Your task to perform on an android device: open app "Google Docs" Image 0: 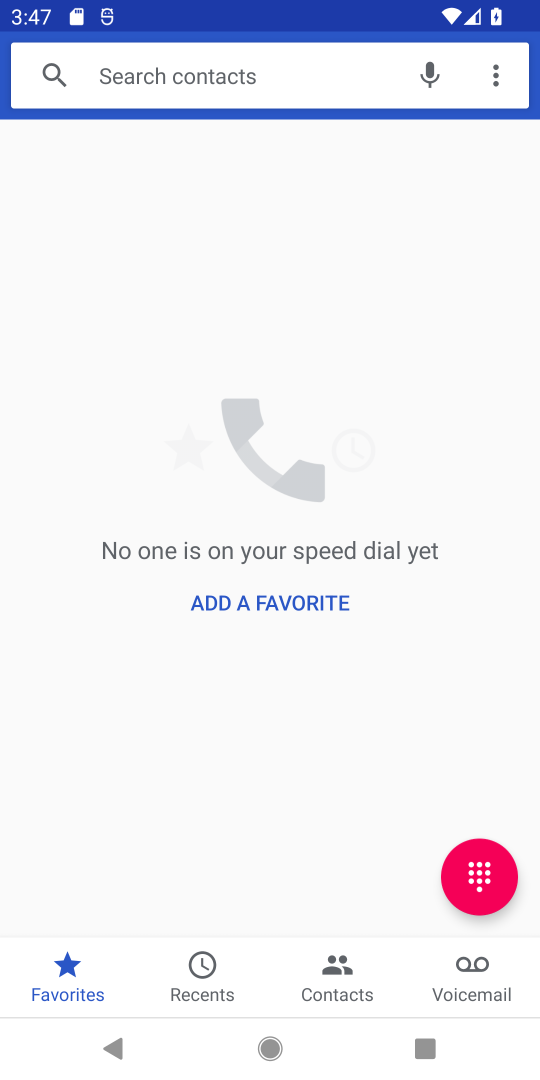
Step 0: press home button
Your task to perform on an android device: open app "Google Docs" Image 1: 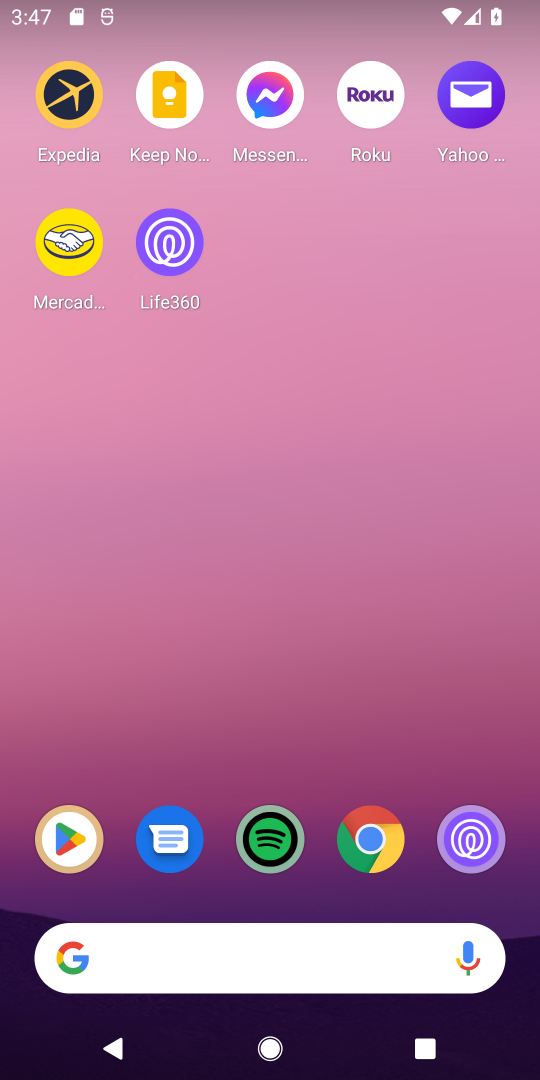
Step 1: drag from (208, 908) to (262, 176)
Your task to perform on an android device: open app "Google Docs" Image 2: 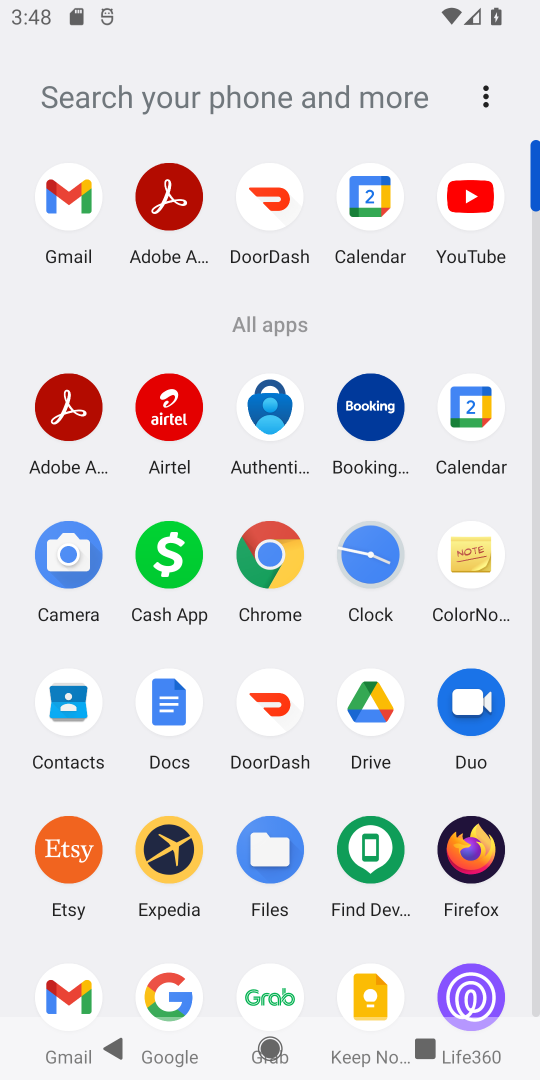
Step 2: click (184, 989)
Your task to perform on an android device: open app "Google Docs" Image 3: 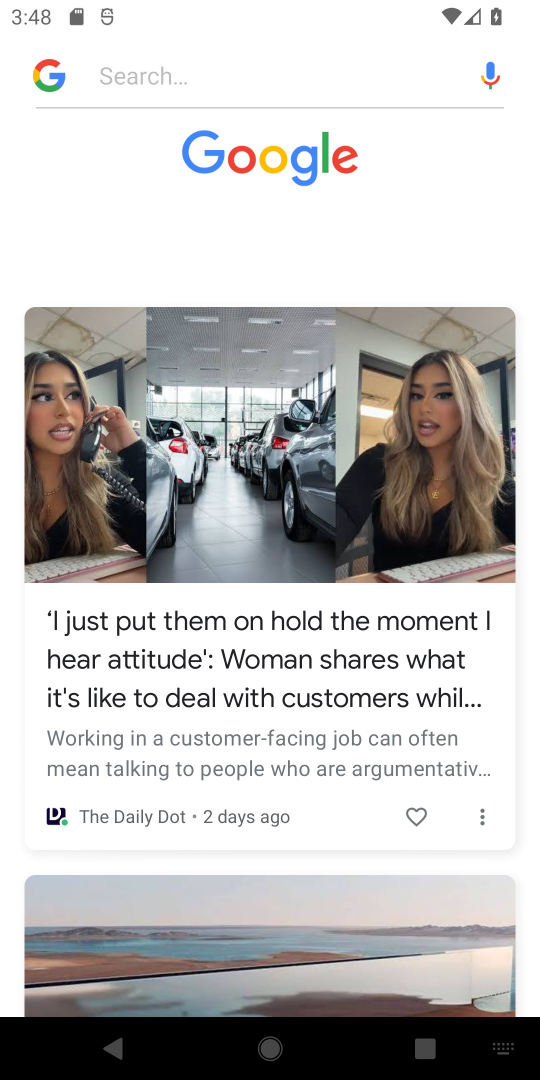
Step 3: press home button
Your task to perform on an android device: open app "Google Docs" Image 4: 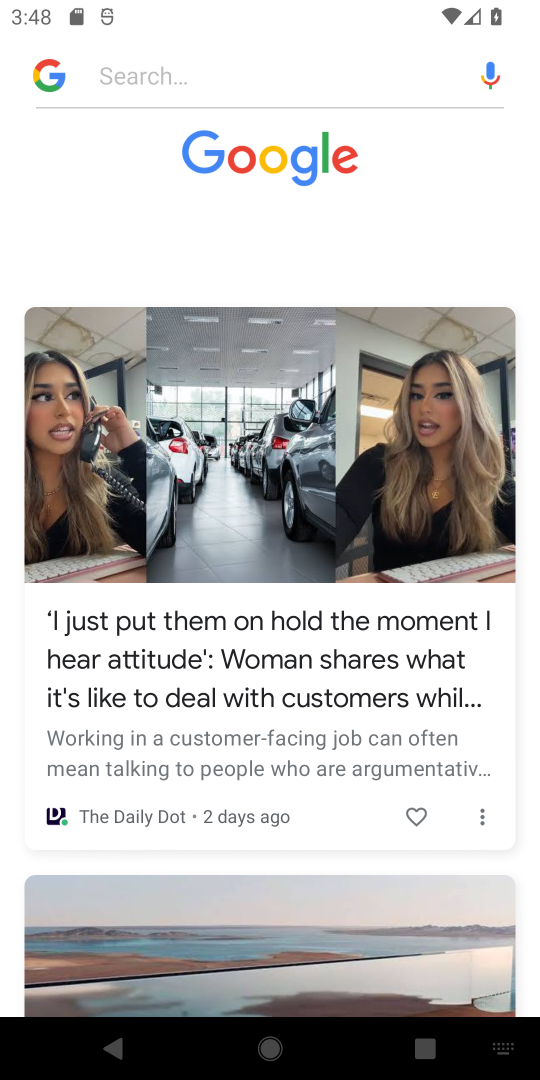
Step 4: type "goo"
Your task to perform on an android device: open app "Google Docs" Image 5: 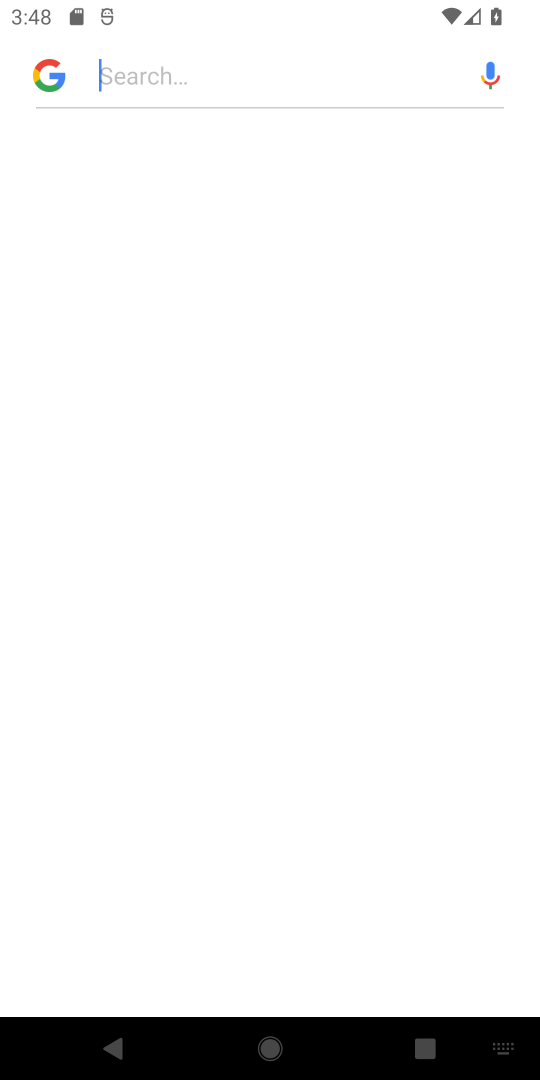
Step 5: click (261, 1056)
Your task to perform on an android device: open app "Google Docs" Image 6: 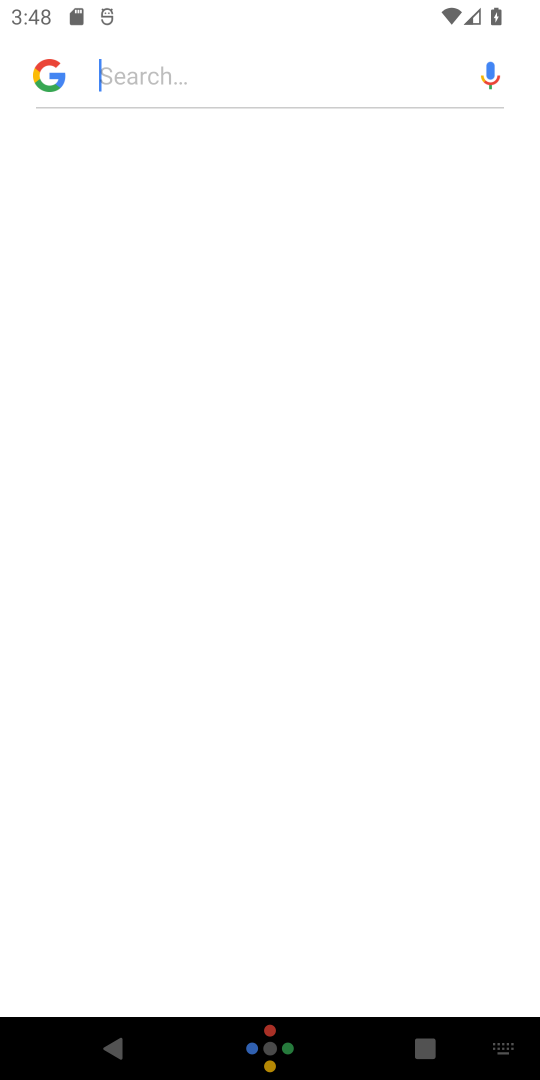
Step 6: click (261, 1056)
Your task to perform on an android device: open app "Google Docs" Image 7: 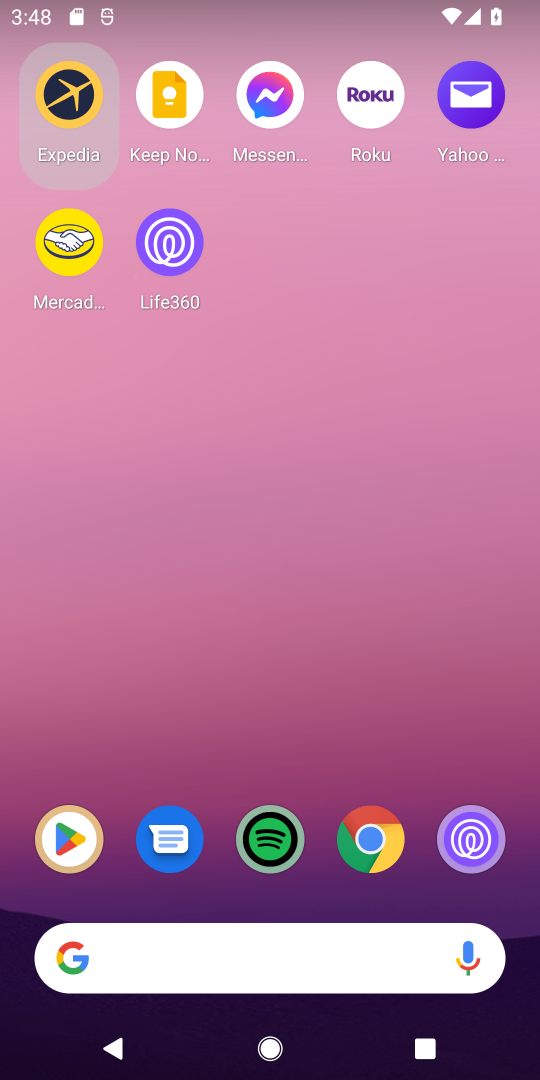
Step 7: click (90, 868)
Your task to perform on an android device: open app "Google Docs" Image 8: 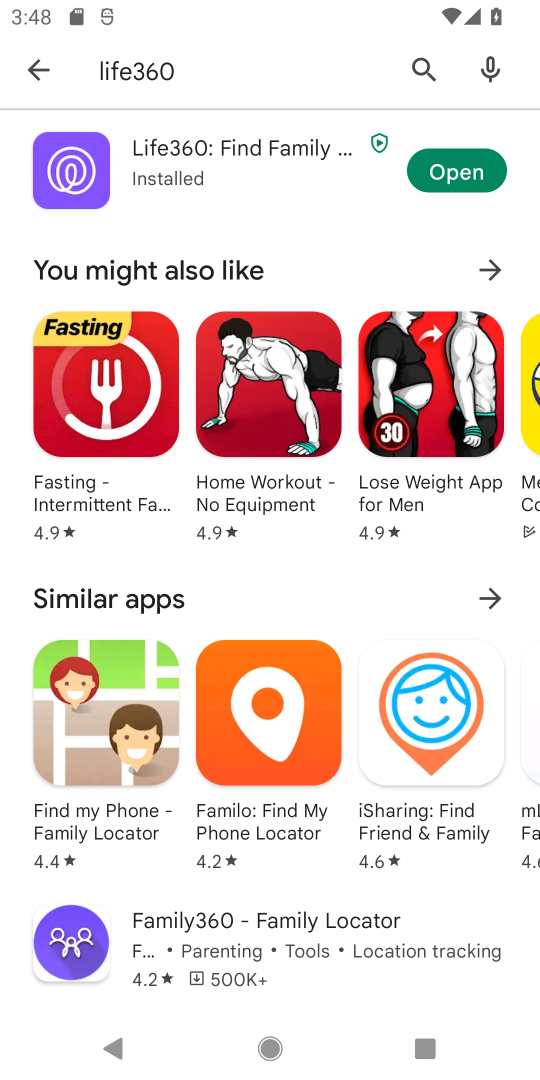
Step 8: click (435, 90)
Your task to perform on an android device: open app "Google Docs" Image 9: 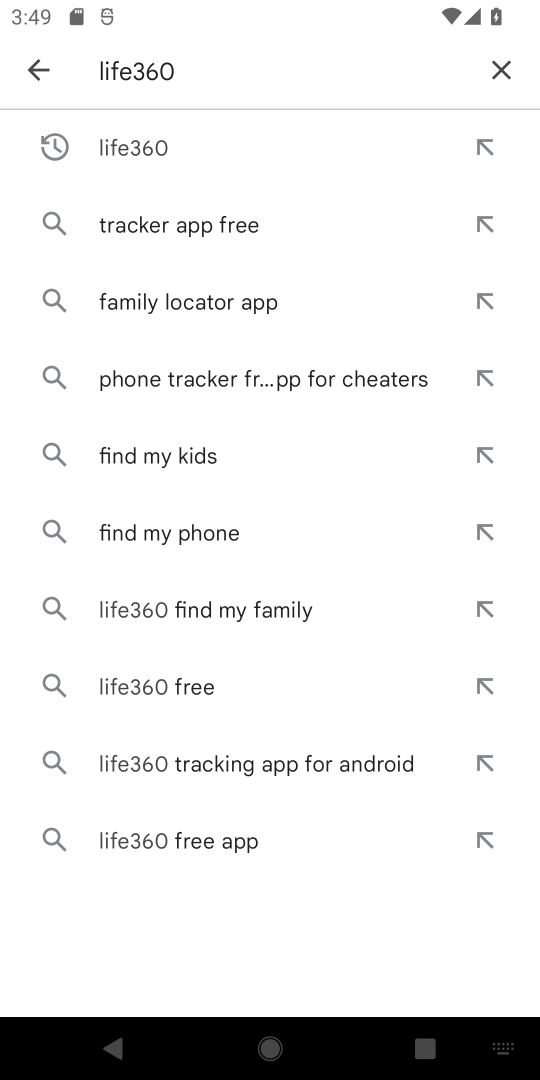
Step 9: click (519, 76)
Your task to perform on an android device: open app "Google Docs" Image 10: 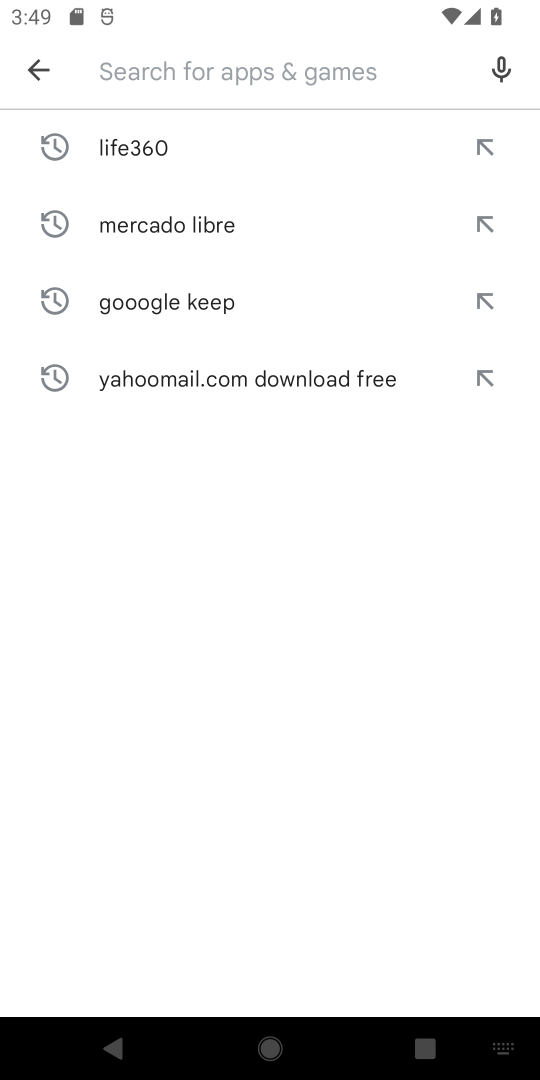
Step 10: type "google doc"
Your task to perform on an android device: open app "Google Docs" Image 11: 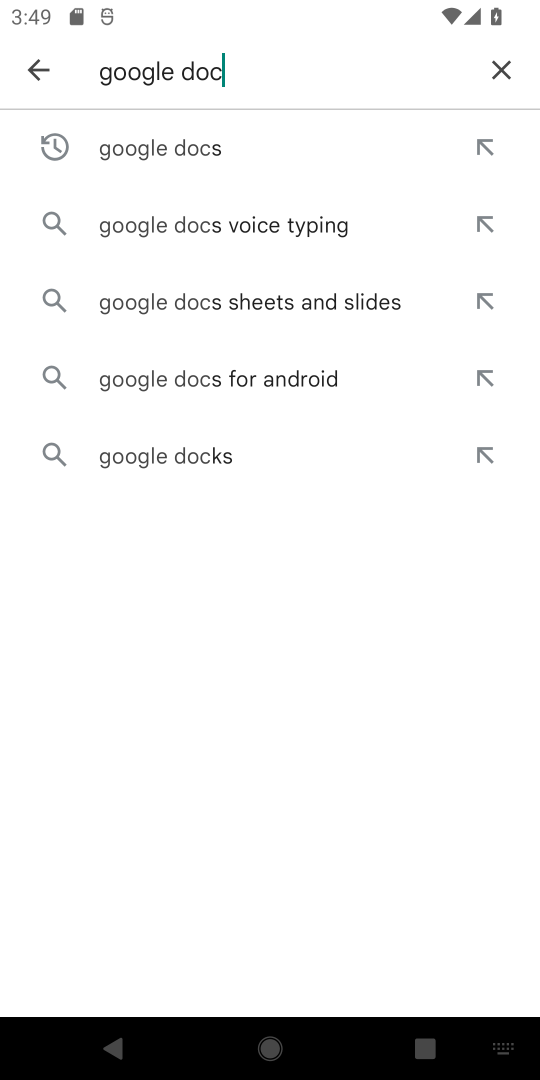
Step 11: click (267, 164)
Your task to perform on an android device: open app "Google Docs" Image 12: 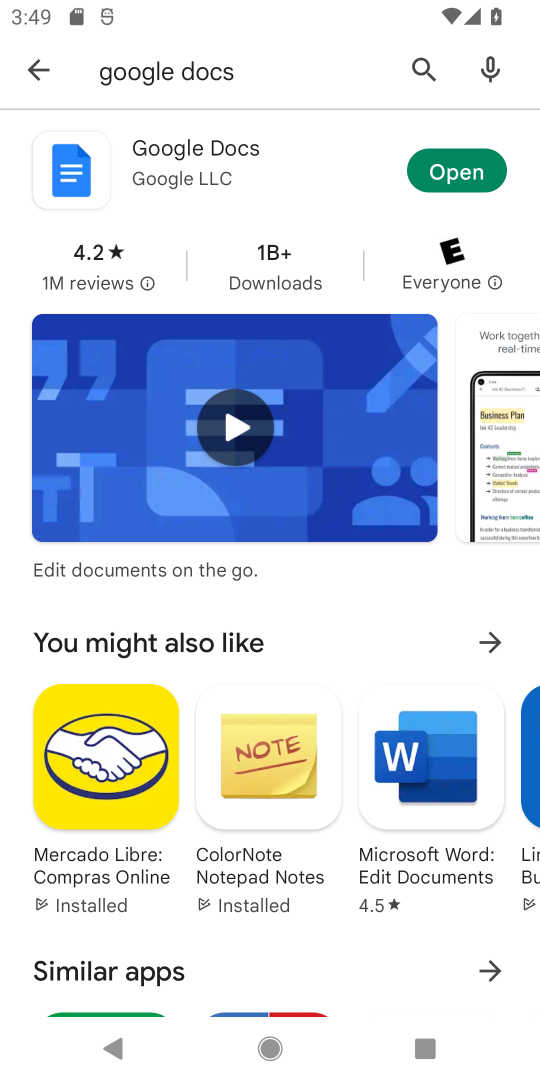
Step 12: click (445, 180)
Your task to perform on an android device: open app "Google Docs" Image 13: 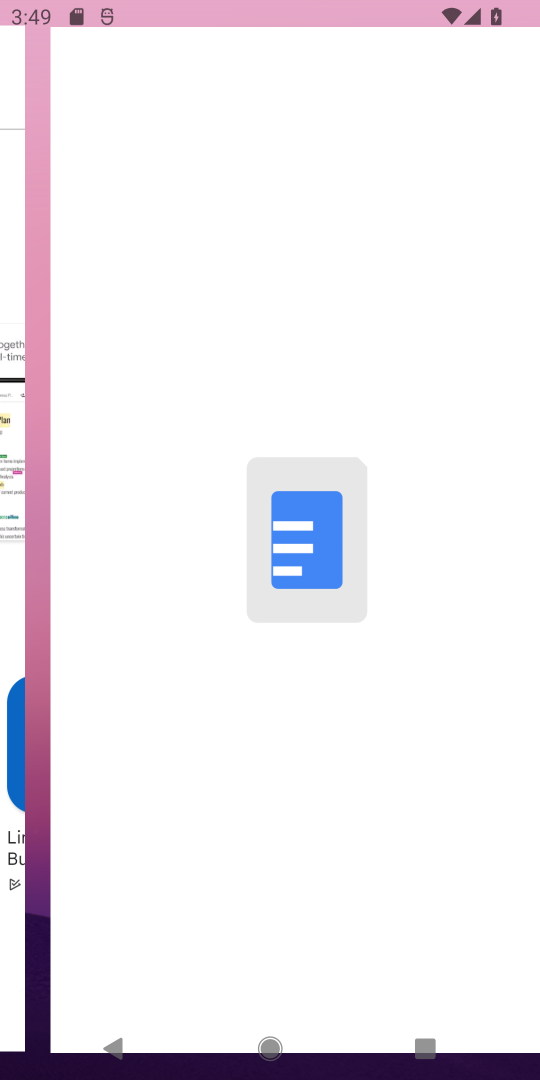
Step 13: task complete